Your task to perform on an android device: Open settings Image 0: 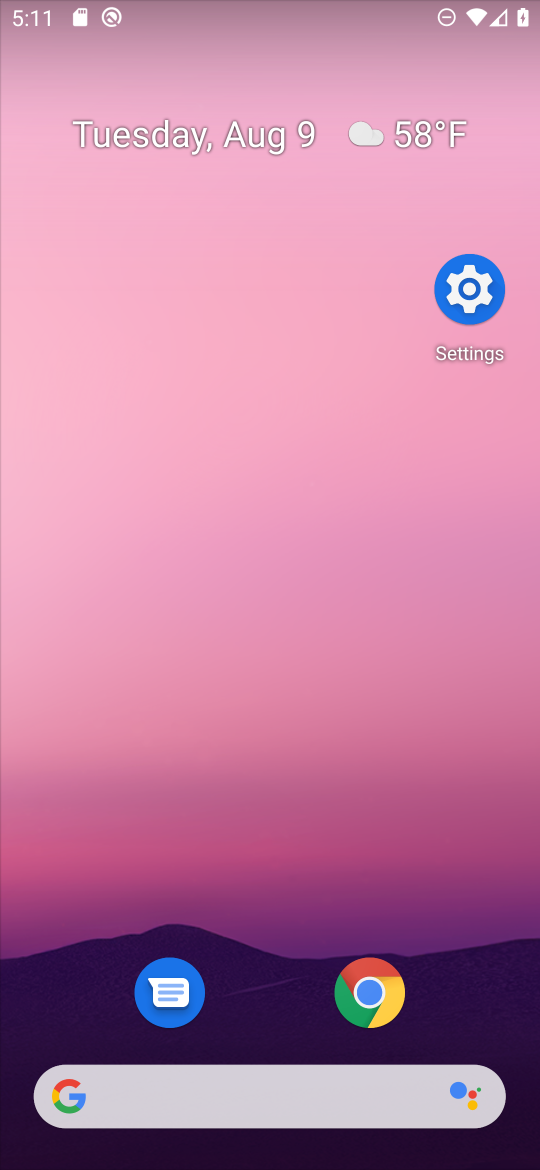
Step 0: drag from (361, 1077) to (368, 65)
Your task to perform on an android device: Open settings Image 1: 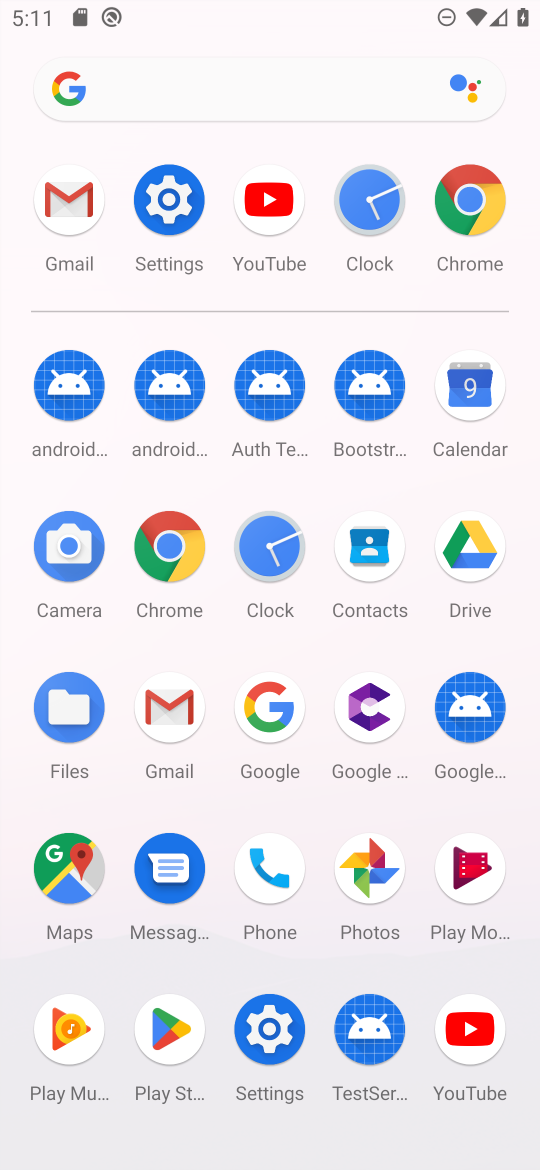
Step 1: click (164, 203)
Your task to perform on an android device: Open settings Image 2: 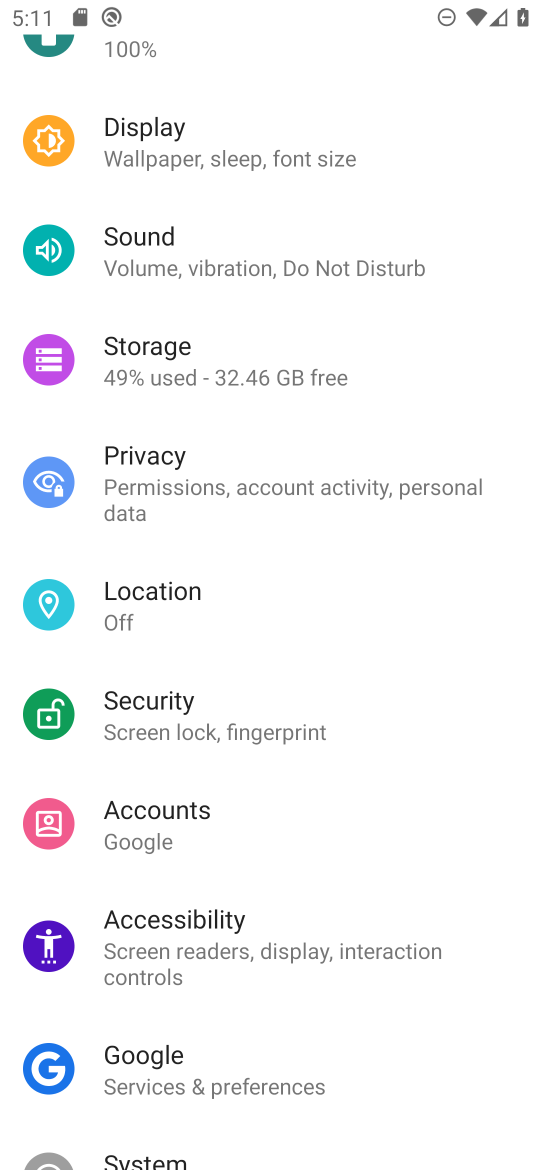
Step 2: task complete